Your task to perform on an android device: Open eBay Image 0: 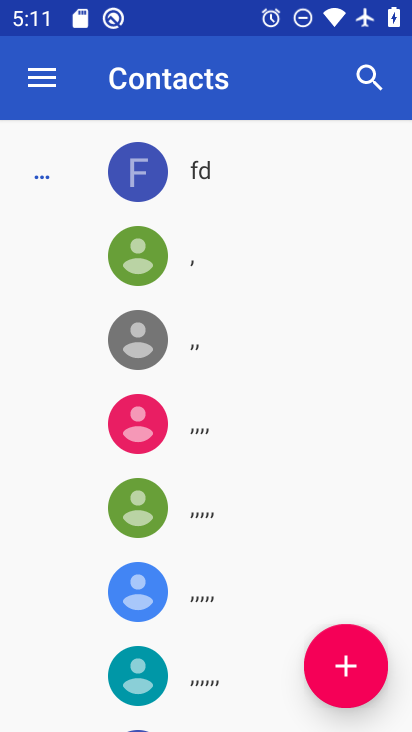
Step 0: press home button
Your task to perform on an android device: Open eBay Image 1: 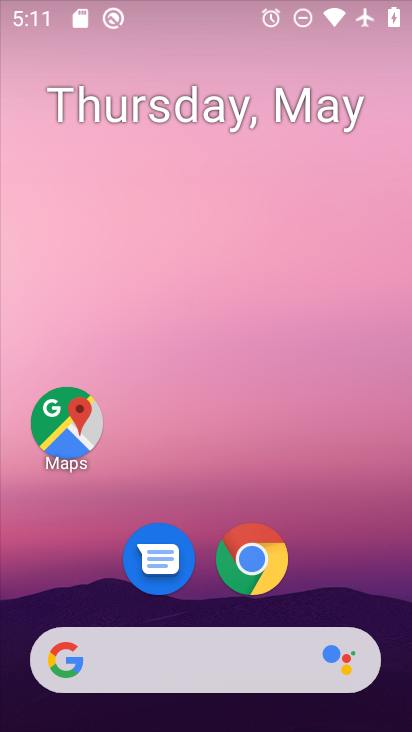
Step 1: click (266, 549)
Your task to perform on an android device: Open eBay Image 2: 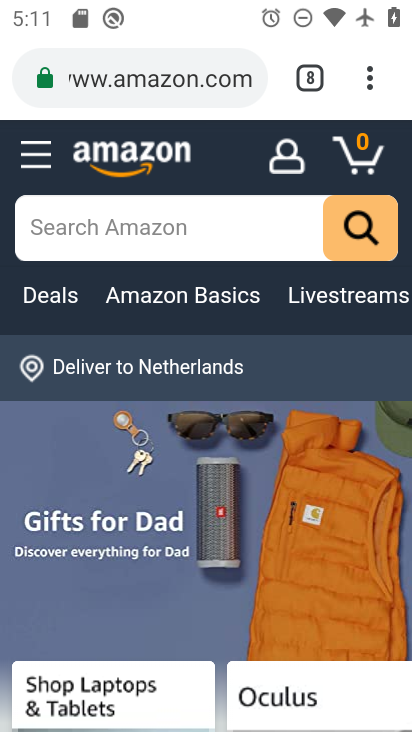
Step 2: click (372, 73)
Your task to perform on an android device: Open eBay Image 3: 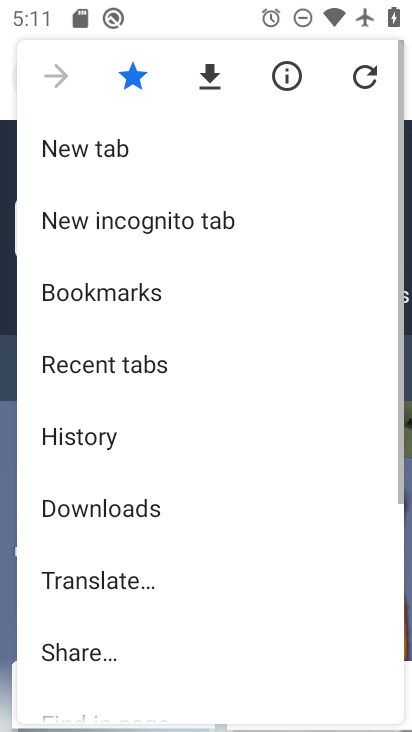
Step 3: click (115, 144)
Your task to perform on an android device: Open eBay Image 4: 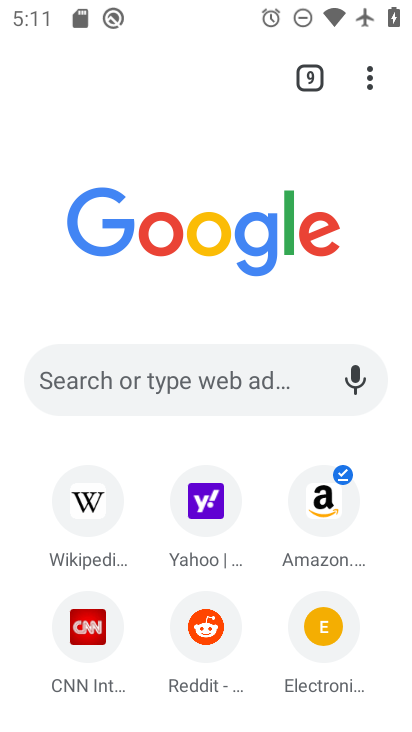
Step 4: click (234, 372)
Your task to perform on an android device: Open eBay Image 5: 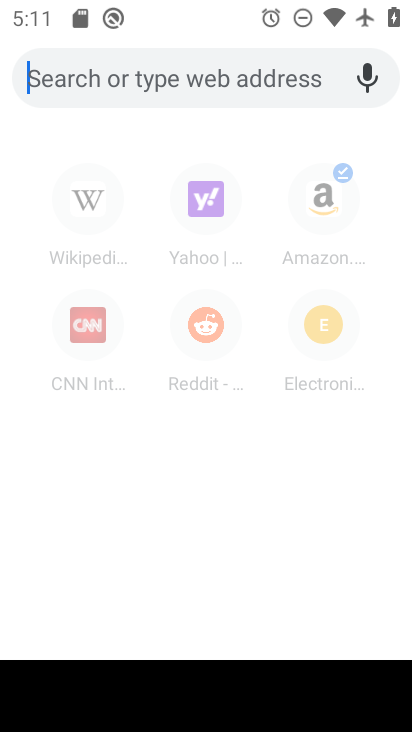
Step 5: type "eBay"
Your task to perform on an android device: Open eBay Image 6: 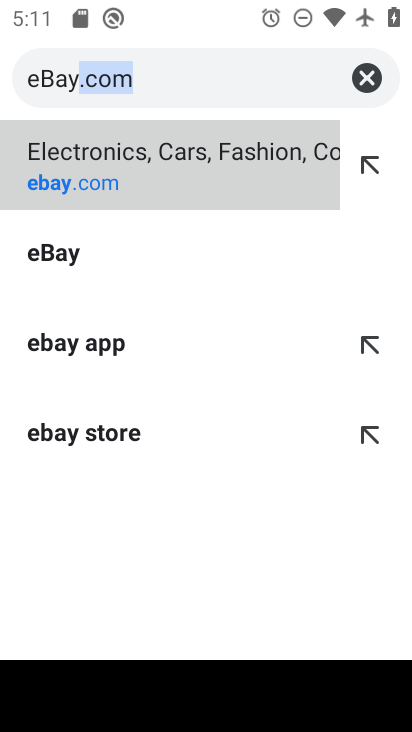
Step 6: click (208, 186)
Your task to perform on an android device: Open eBay Image 7: 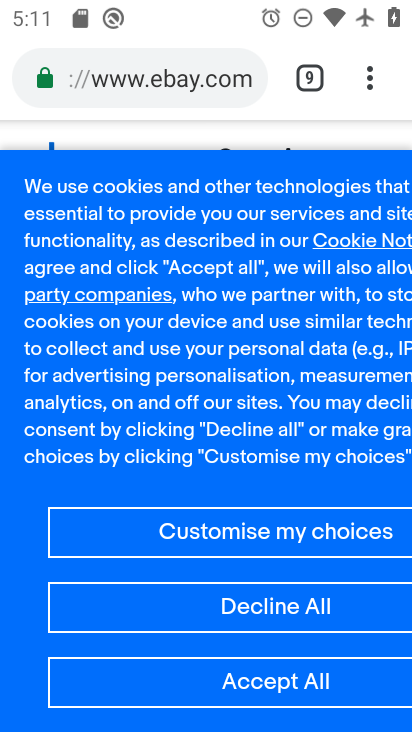
Step 7: task complete